Your task to perform on an android device: Check the news Image 0: 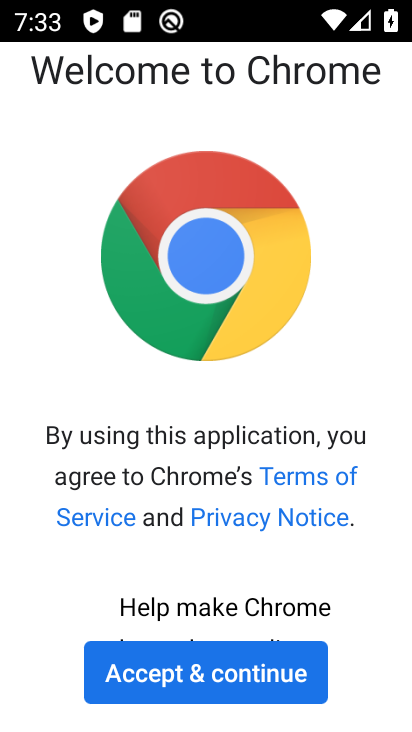
Step 0: press home button
Your task to perform on an android device: Check the news Image 1: 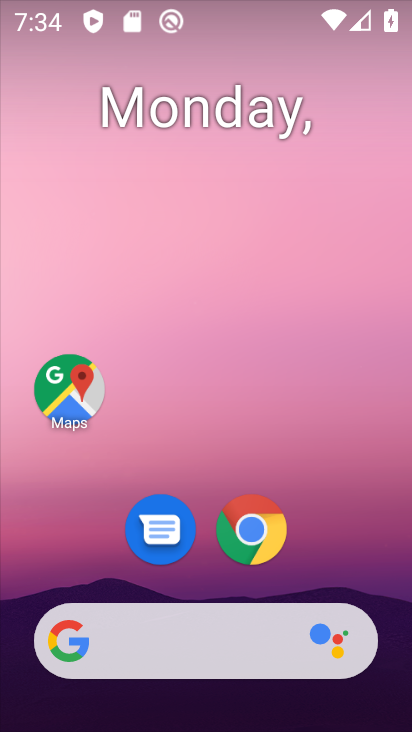
Step 1: task complete